Your task to perform on an android device: Go to battery settings Image 0: 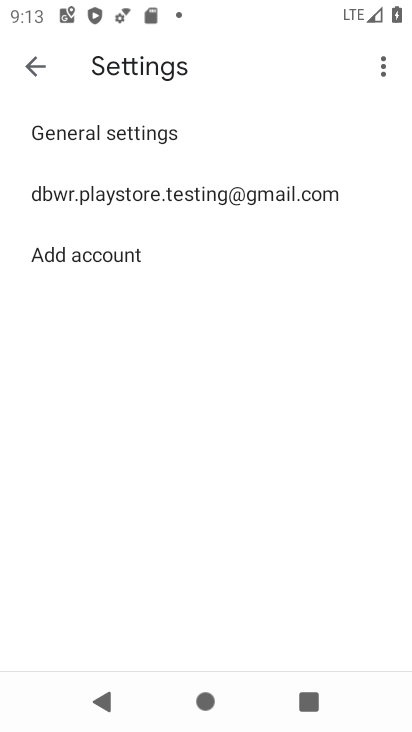
Step 0: press home button
Your task to perform on an android device: Go to battery settings Image 1: 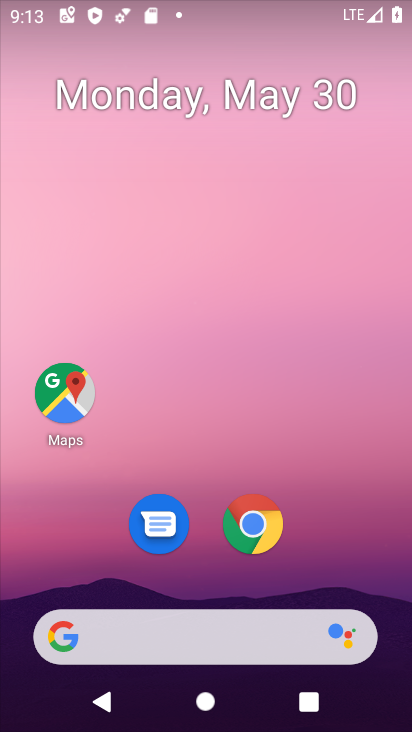
Step 1: drag from (344, 552) to (348, 56)
Your task to perform on an android device: Go to battery settings Image 2: 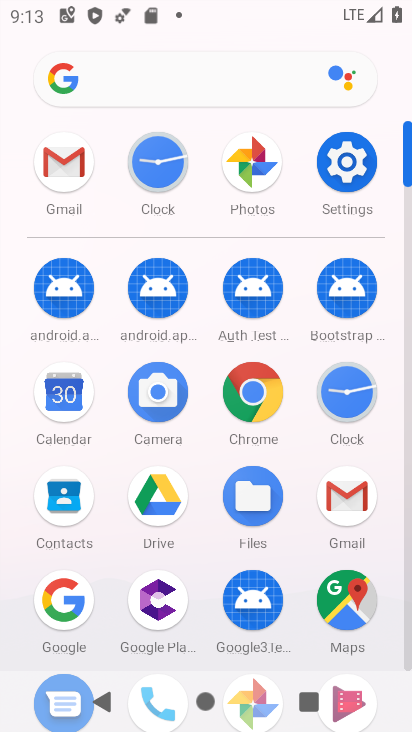
Step 2: click (345, 165)
Your task to perform on an android device: Go to battery settings Image 3: 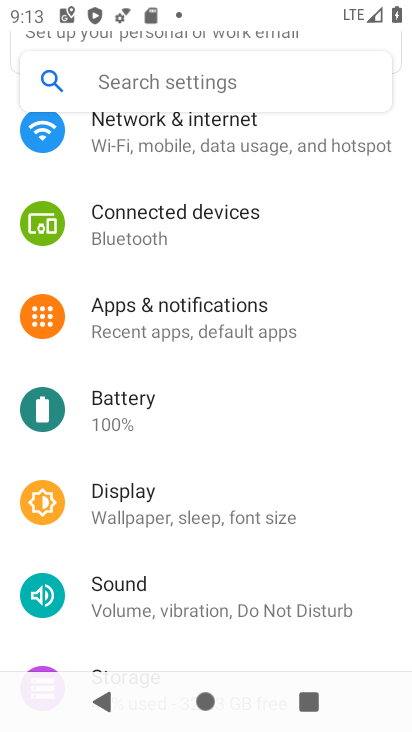
Step 3: click (143, 397)
Your task to perform on an android device: Go to battery settings Image 4: 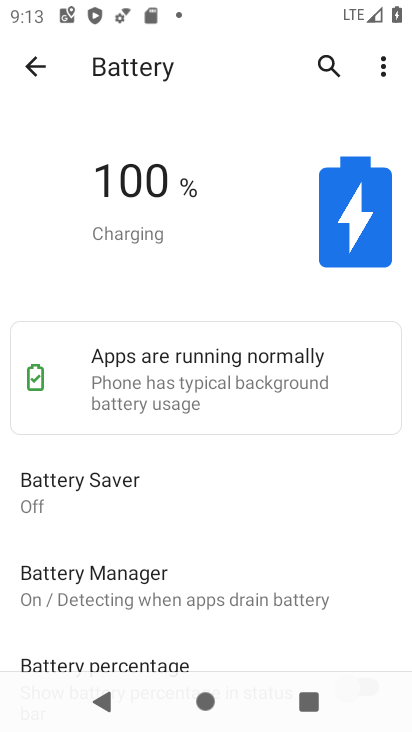
Step 4: task complete